Your task to perform on an android device: Go to Wikipedia Image 0: 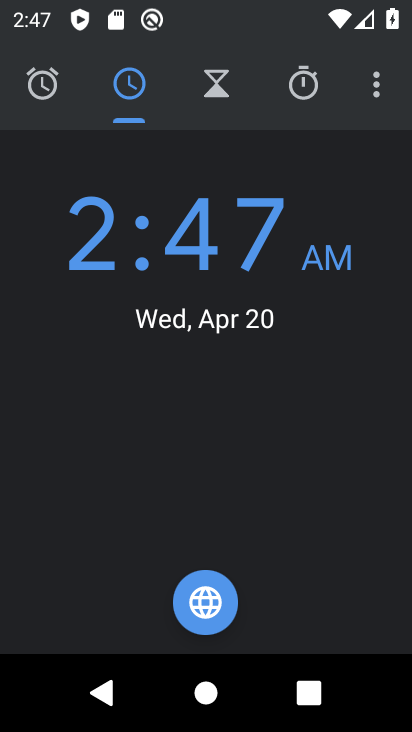
Step 0: press home button
Your task to perform on an android device: Go to Wikipedia Image 1: 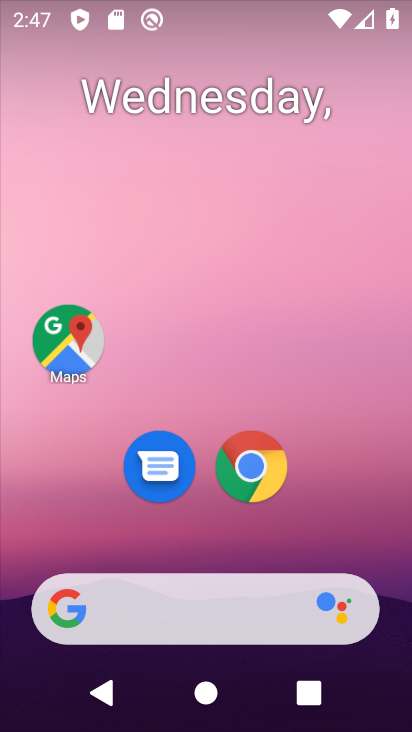
Step 1: click (254, 468)
Your task to perform on an android device: Go to Wikipedia Image 2: 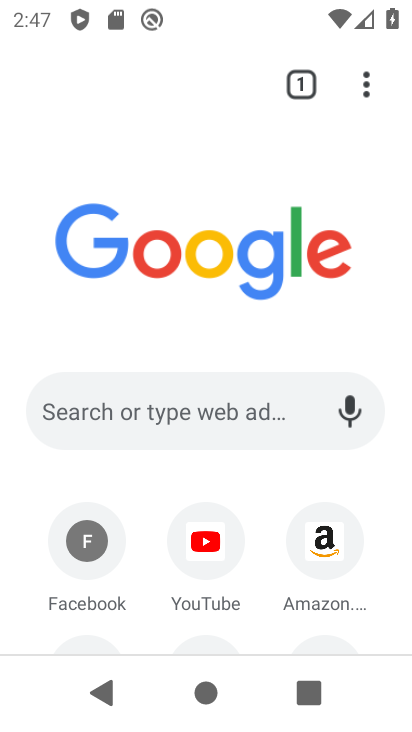
Step 2: drag from (268, 614) to (252, 330)
Your task to perform on an android device: Go to Wikipedia Image 3: 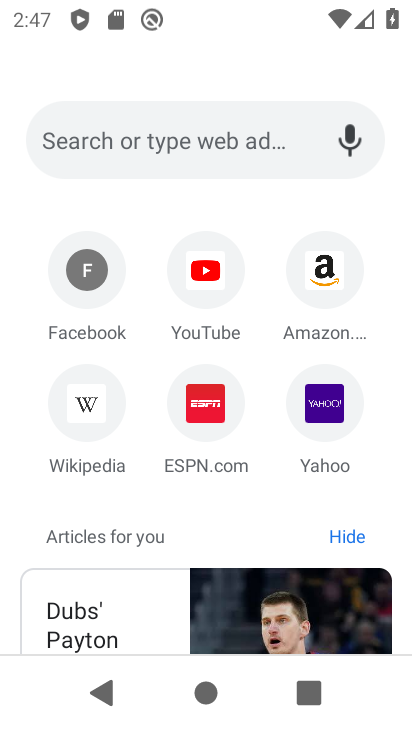
Step 3: click (83, 394)
Your task to perform on an android device: Go to Wikipedia Image 4: 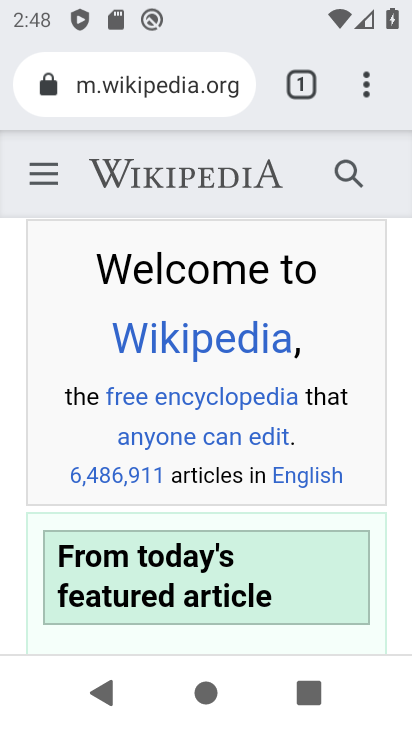
Step 4: task complete